Your task to perform on an android device: Open the phone app and click the voicemail tab. Image 0: 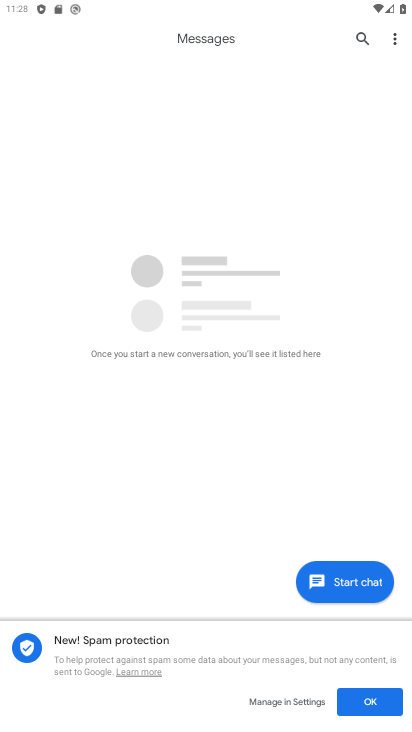
Step 0: press home button
Your task to perform on an android device: Open the phone app and click the voicemail tab. Image 1: 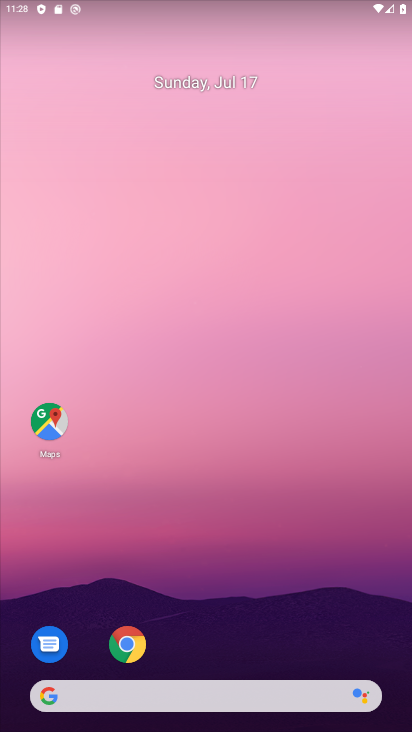
Step 1: drag from (398, 620) to (319, 29)
Your task to perform on an android device: Open the phone app and click the voicemail tab. Image 2: 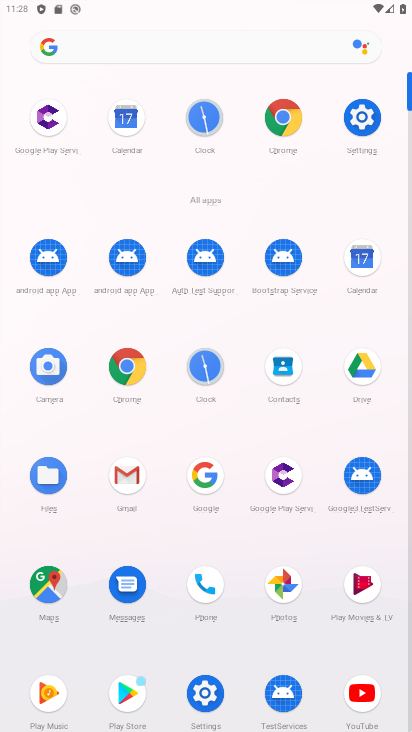
Step 2: click (198, 579)
Your task to perform on an android device: Open the phone app and click the voicemail tab. Image 3: 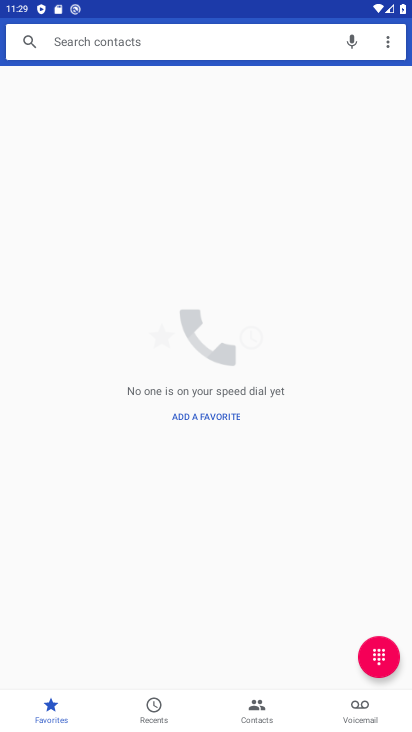
Step 3: click (359, 704)
Your task to perform on an android device: Open the phone app and click the voicemail tab. Image 4: 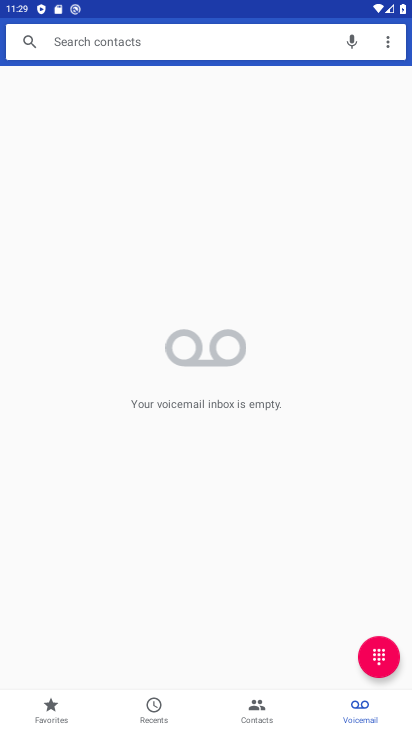
Step 4: task complete